Your task to perform on an android device: clear all cookies in the chrome app Image 0: 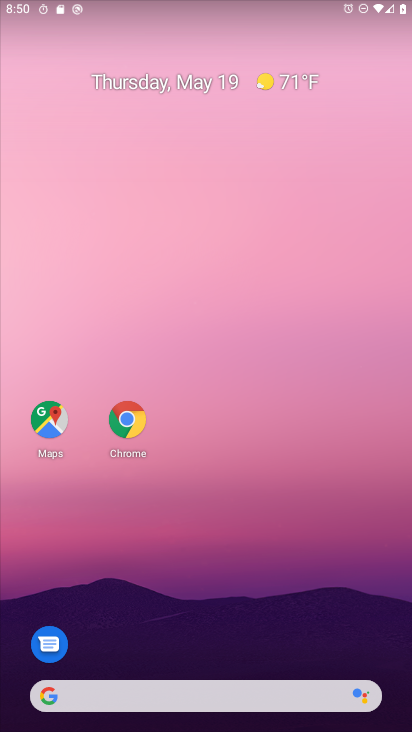
Step 0: click (130, 426)
Your task to perform on an android device: clear all cookies in the chrome app Image 1: 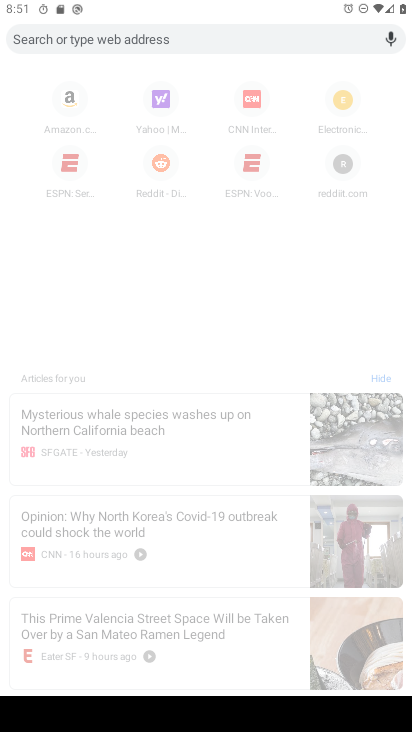
Step 1: drag from (250, 326) to (277, 92)
Your task to perform on an android device: clear all cookies in the chrome app Image 2: 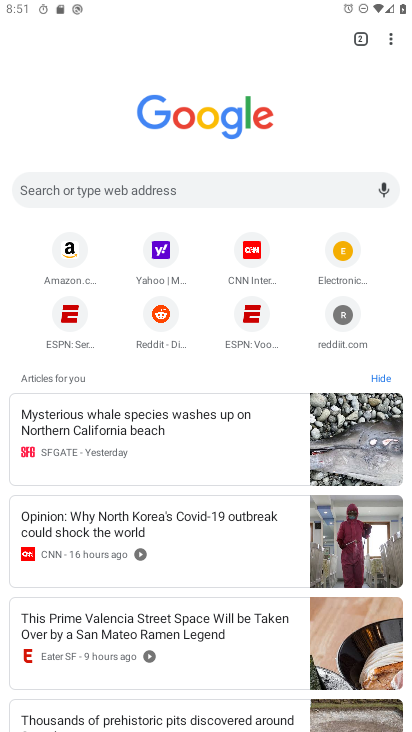
Step 2: click (386, 37)
Your task to perform on an android device: clear all cookies in the chrome app Image 3: 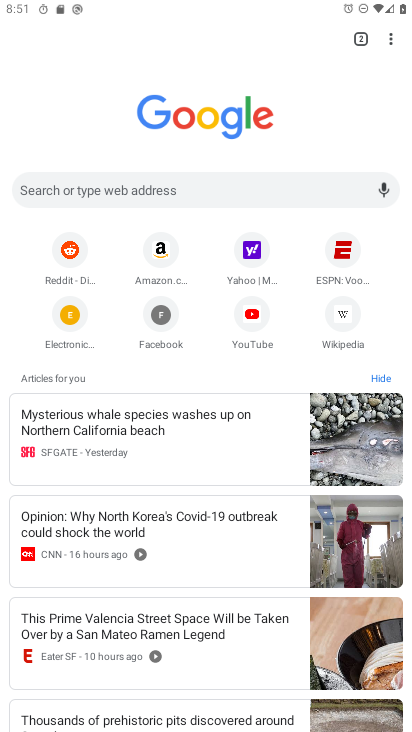
Step 3: click (396, 51)
Your task to perform on an android device: clear all cookies in the chrome app Image 4: 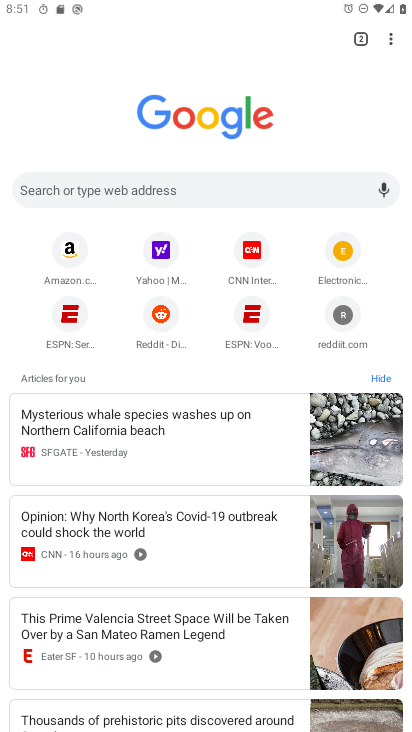
Step 4: click (394, 42)
Your task to perform on an android device: clear all cookies in the chrome app Image 5: 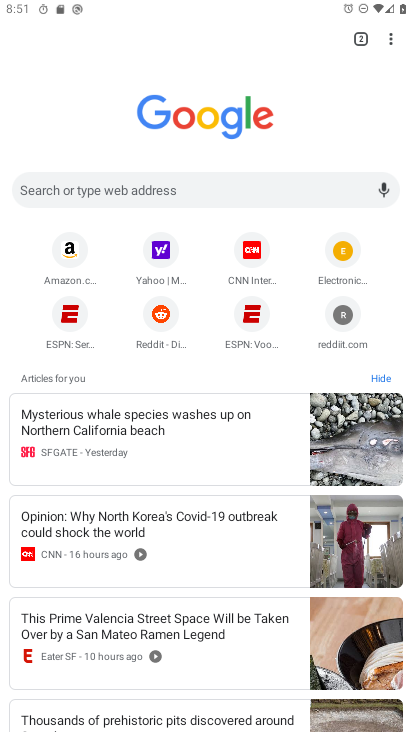
Step 5: click (385, 35)
Your task to perform on an android device: clear all cookies in the chrome app Image 6: 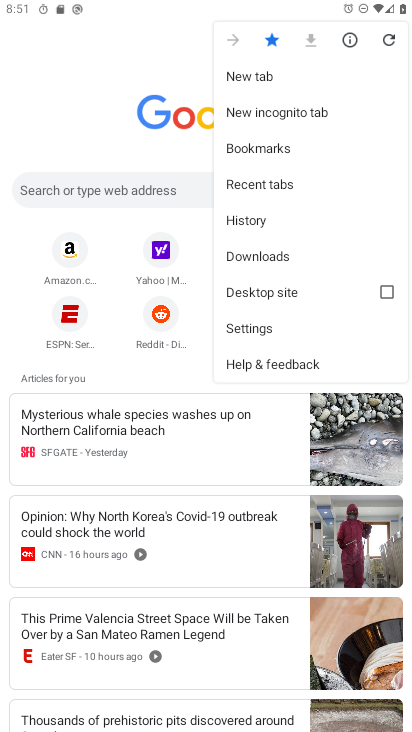
Step 6: click (262, 221)
Your task to perform on an android device: clear all cookies in the chrome app Image 7: 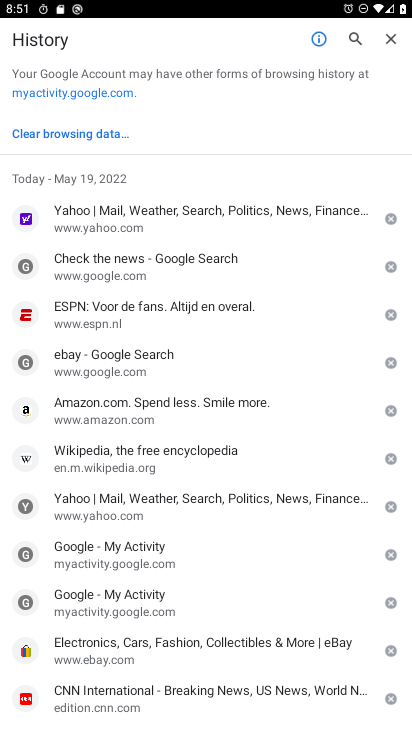
Step 7: click (113, 129)
Your task to perform on an android device: clear all cookies in the chrome app Image 8: 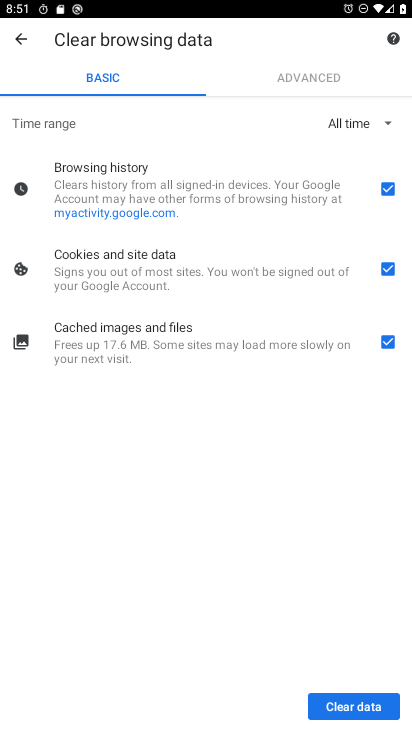
Step 8: click (387, 186)
Your task to perform on an android device: clear all cookies in the chrome app Image 9: 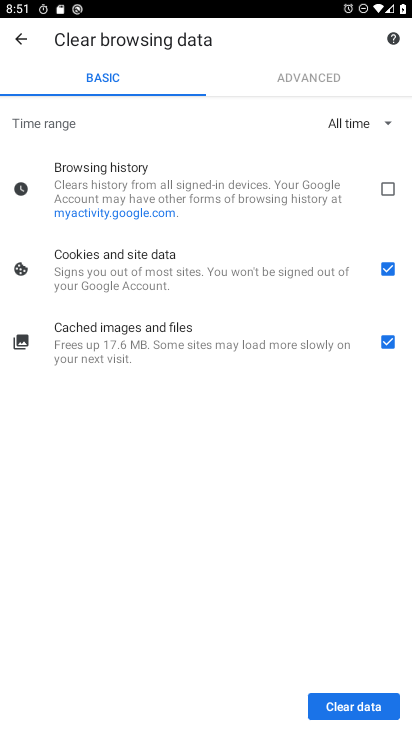
Step 9: click (387, 345)
Your task to perform on an android device: clear all cookies in the chrome app Image 10: 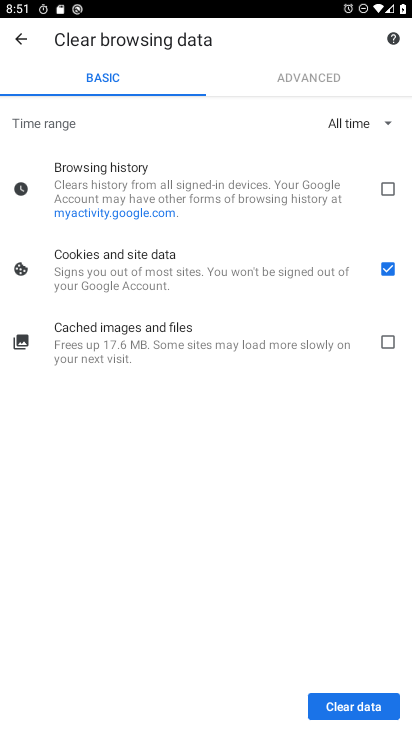
Step 10: click (333, 711)
Your task to perform on an android device: clear all cookies in the chrome app Image 11: 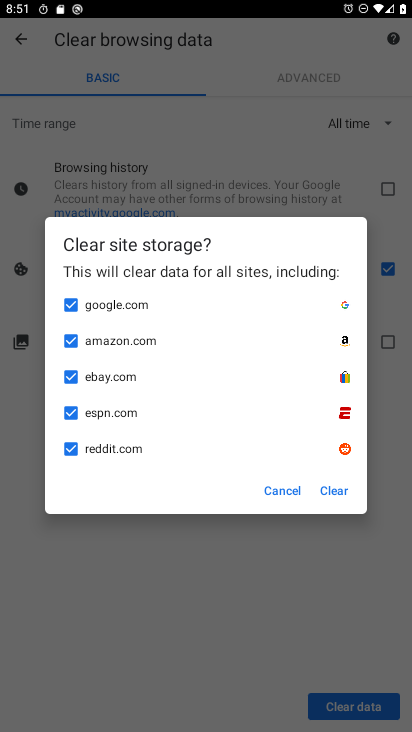
Step 11: click (320, 495)
Your task to perform on an android device: clear all cookies in the chrome app Image 12: 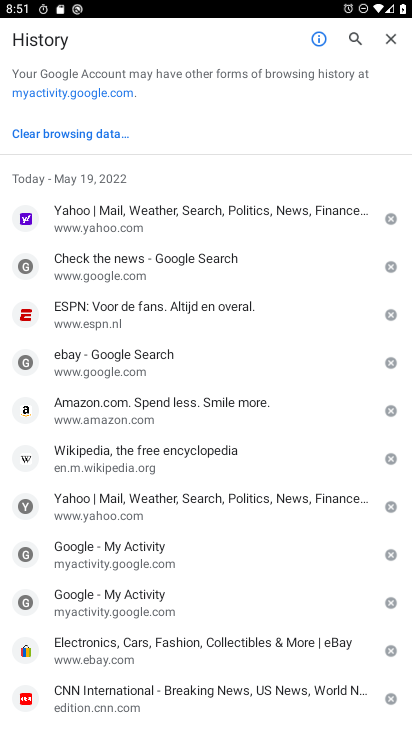
Step 12: task complete